Your task to perform on an android device: delete the emails in spam in the gmail app Image 0: 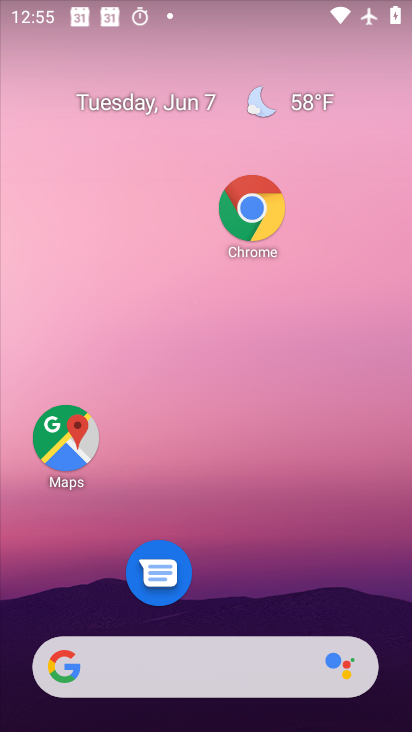
Step 0: click (181, 238)
Your task to perform on an android device: delete the emails in spam in the gmail app Image 1: 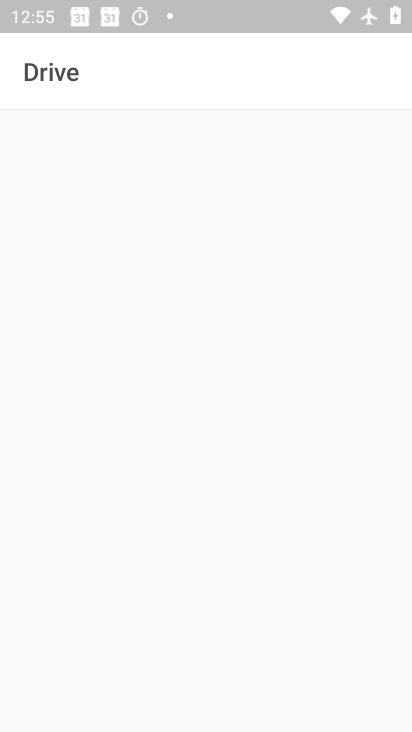
Step 1: drag from (216, 598) to (217, 451)
Your task to perform on an android device: delete the emails in spam in the gmail app Image 2: 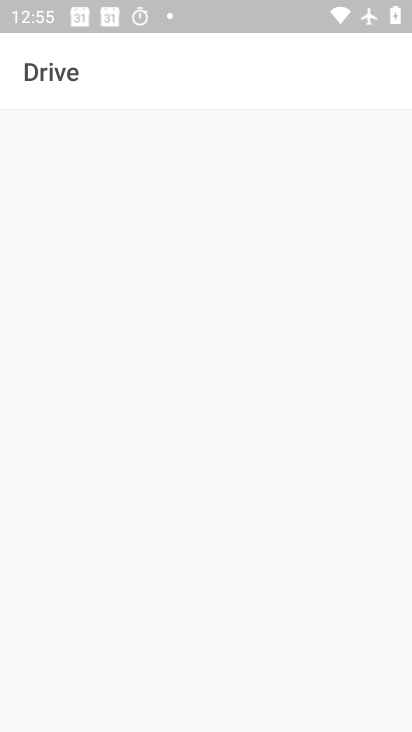
Step 2: press home button
Your task to perform on an android device: delete the emails in spam in the gmail app Image 3: 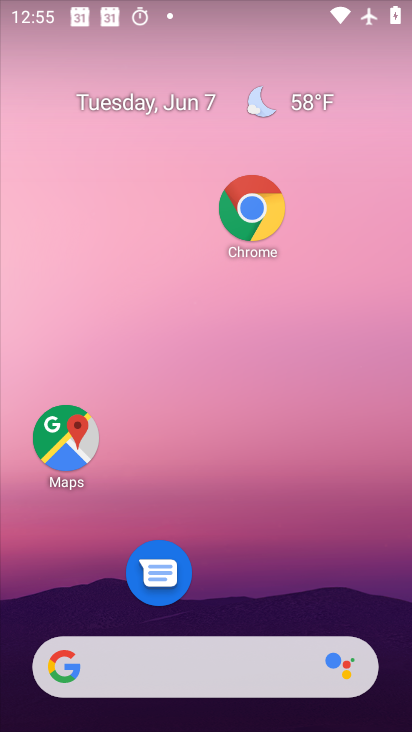
Step 3: drag from (211, 597) to (212, 184)
Your task to perform on an android device: delete the emails in spam in the gmail app Image 4: 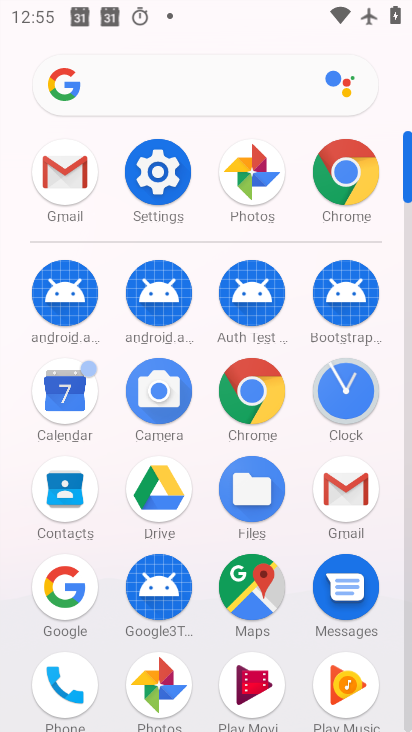
Step 4: click (332, 486)
Your task to perform on an android device: delete the emails in spam in the gmail app Image 5: 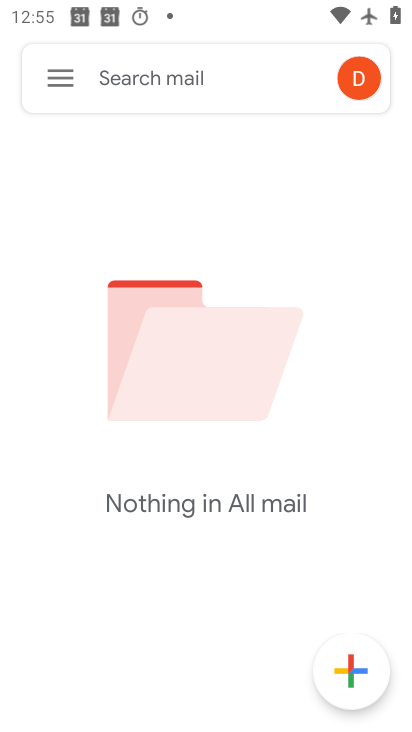
Step 5: click (58, 84)
Your task to perform on an android device: delete the emails in spam in the gmail app Image 6: 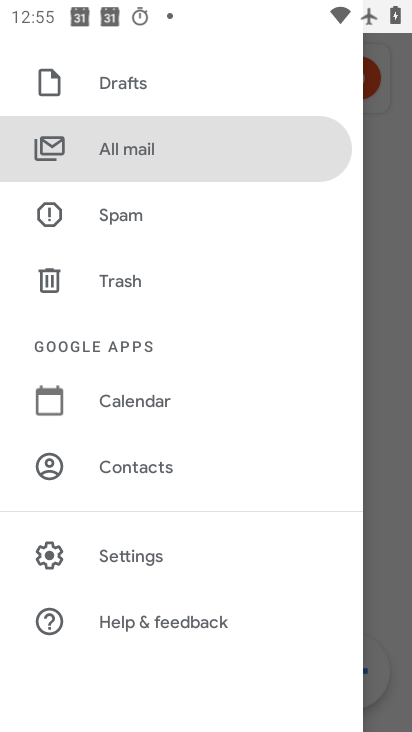
Step 6: click (144, 144)
Your task to perform on an android device: delete the emails in spam in the gmail app Image 7: 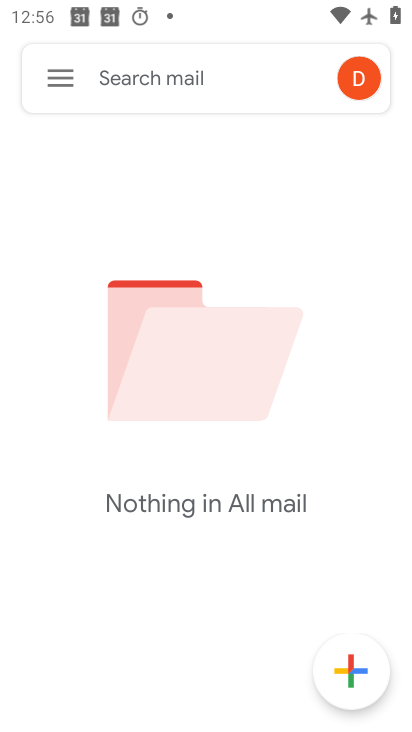
Step 7: task complete